Your task to perform on an android device: add a contact in the contacts app Image 0: 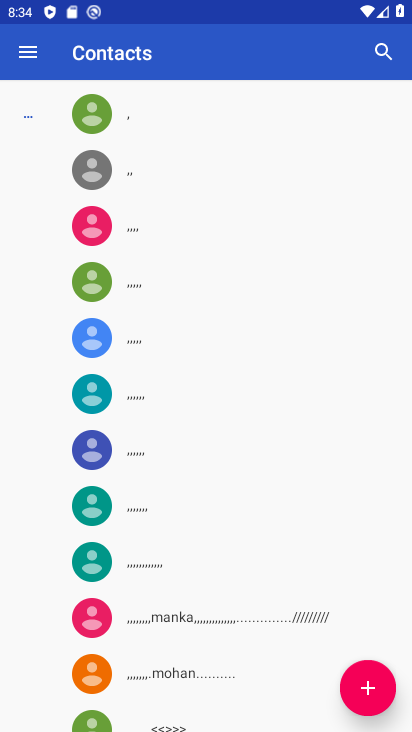
Step 0: click (382, 681)
Your task to perform on an android device: add a contact in the contacts app Image 1: 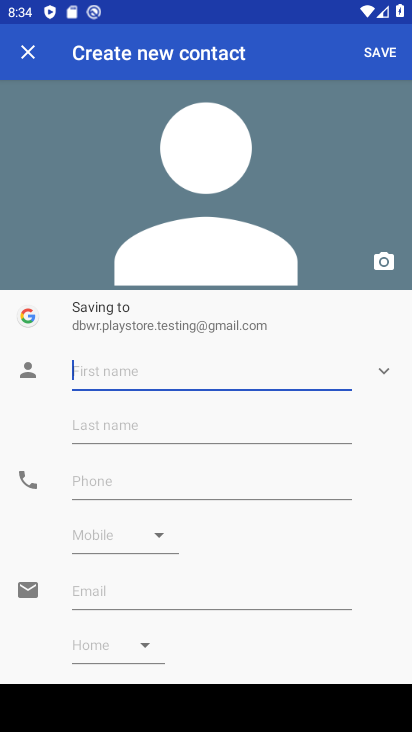
Step 1: type "nnnn"
Your task to perform on an android device: add a contact in the contacts app Image 2: 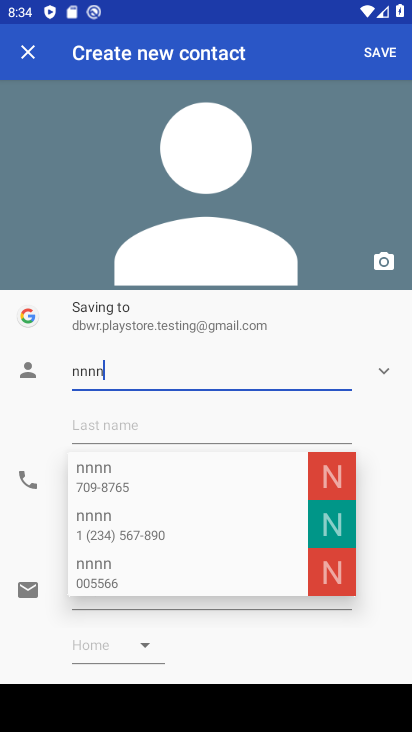
Step 2: click (46, 524)
Your task to perform on an android device: add a contact in the contacts app Image 3: 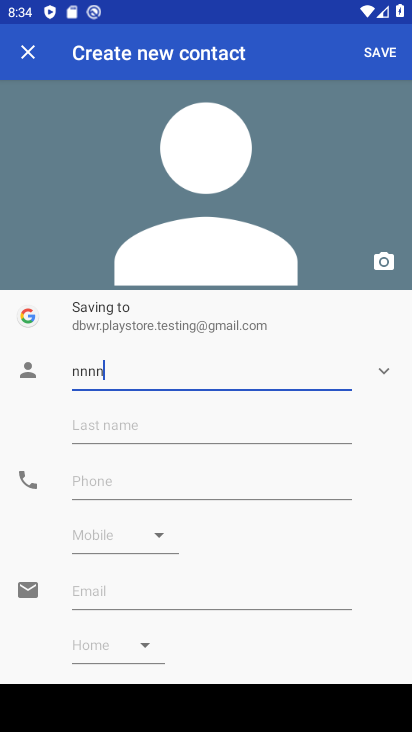
Step 3: click (178, 476)
Your task to perform on an android device: add a contact in the contacts app Image 4: 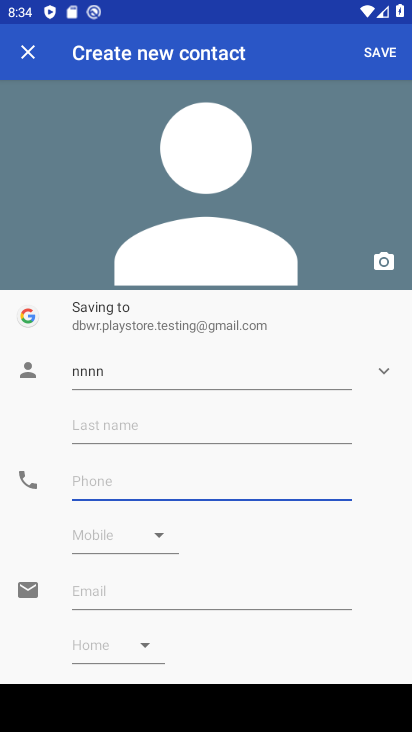
Step 4: type "2244"
Your task to perform on an android device: add a contact in the contacts app Image 5: 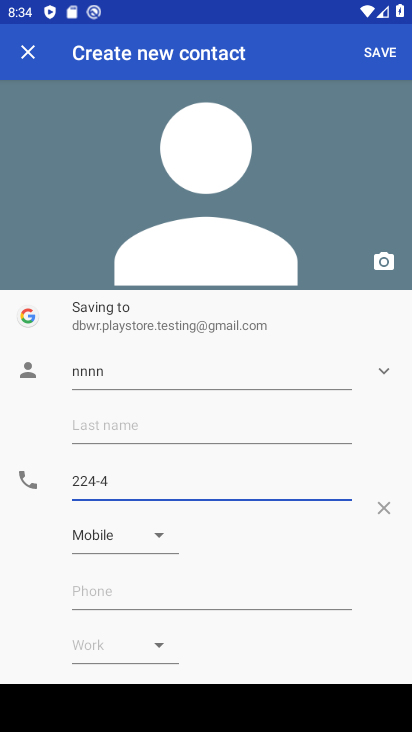
Step 5: click (379, 49)
Your task to perform on an android device: add a contact in the contacts app Image 6: 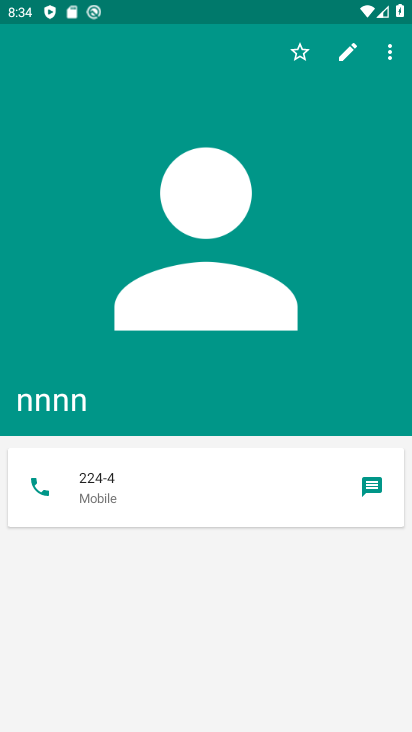
Step 6: task complete